Your task to perform on an android device: uninstall "DuckDuckGo Privacy Browser" Image 0: 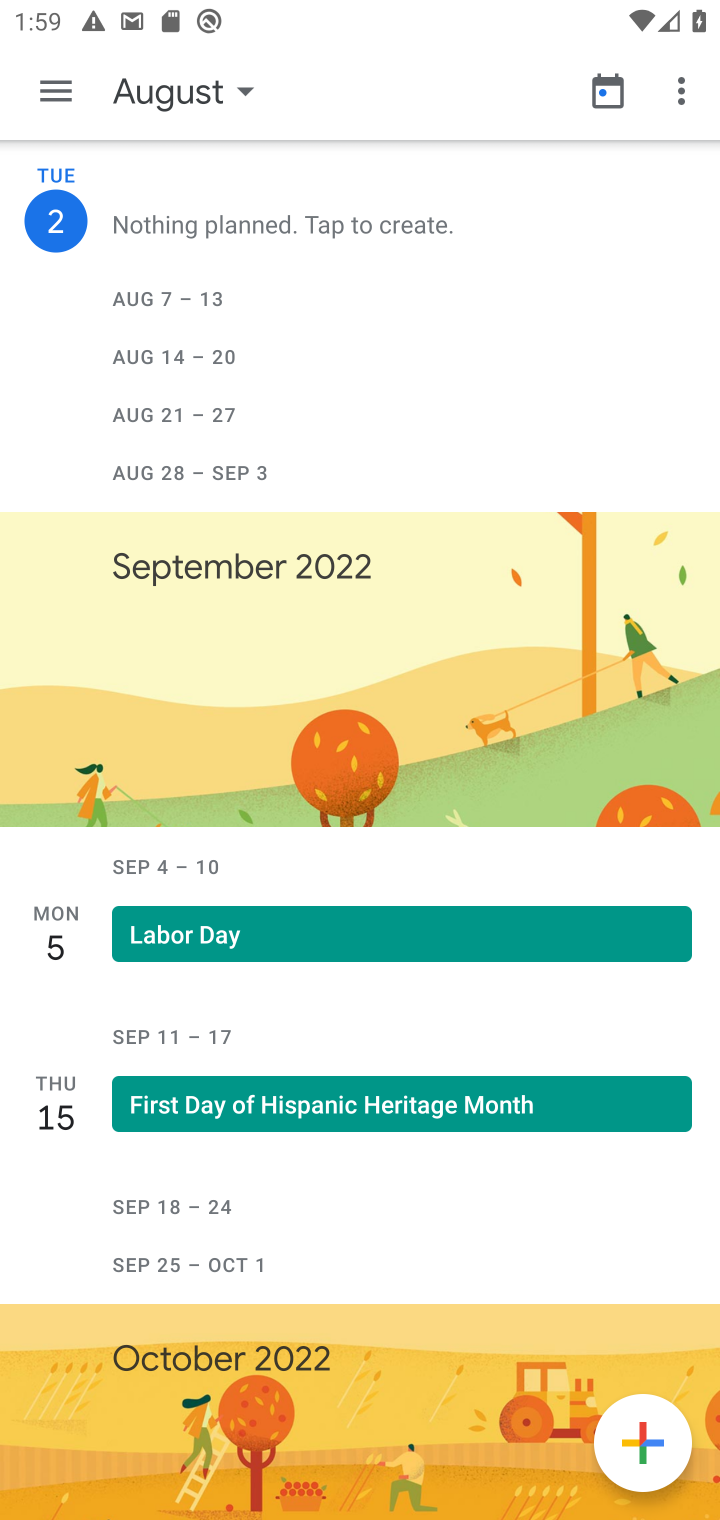
Step 0: press home button
Your task to perform on an android device: uninstall "DuckDuckGo Privacy Browser" Image 1: 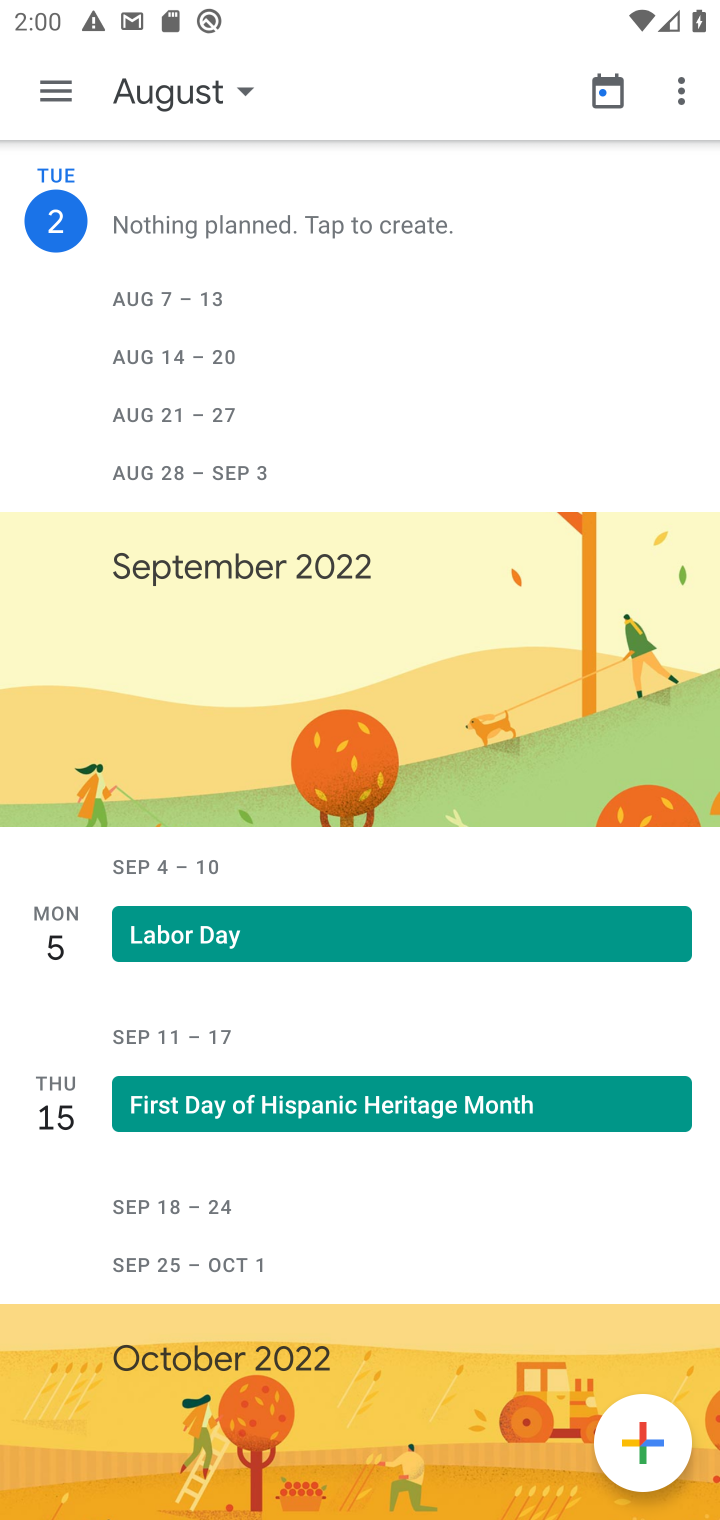
Step 1: press home button
Your task to perform on an android device: uninstall "DuckDuckGo Privacy Browser" Image 2: 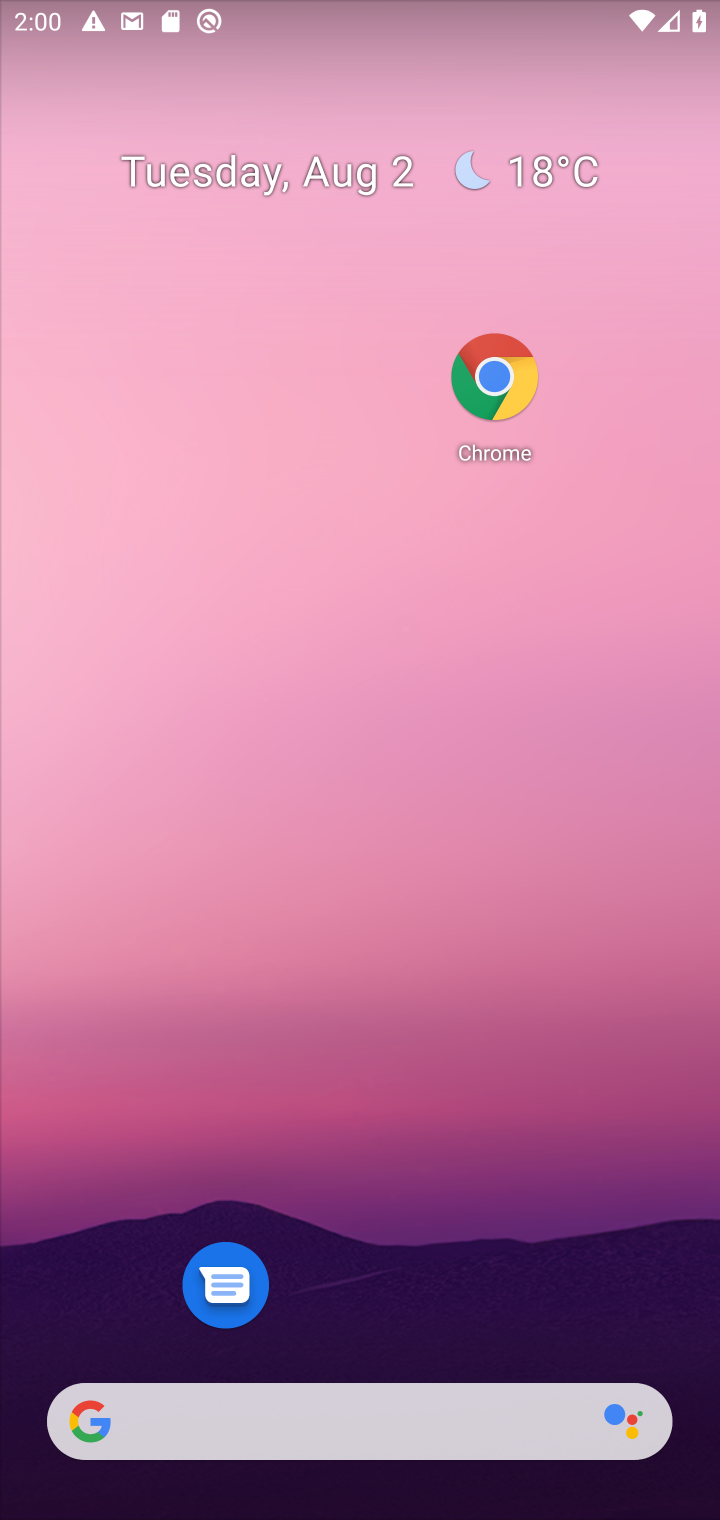
Step 2: drag from (594, 1268) to (507, 15)
Your task to perform on an android device: uninstall "DuckDuckGo Privacy Browser" Image 3: 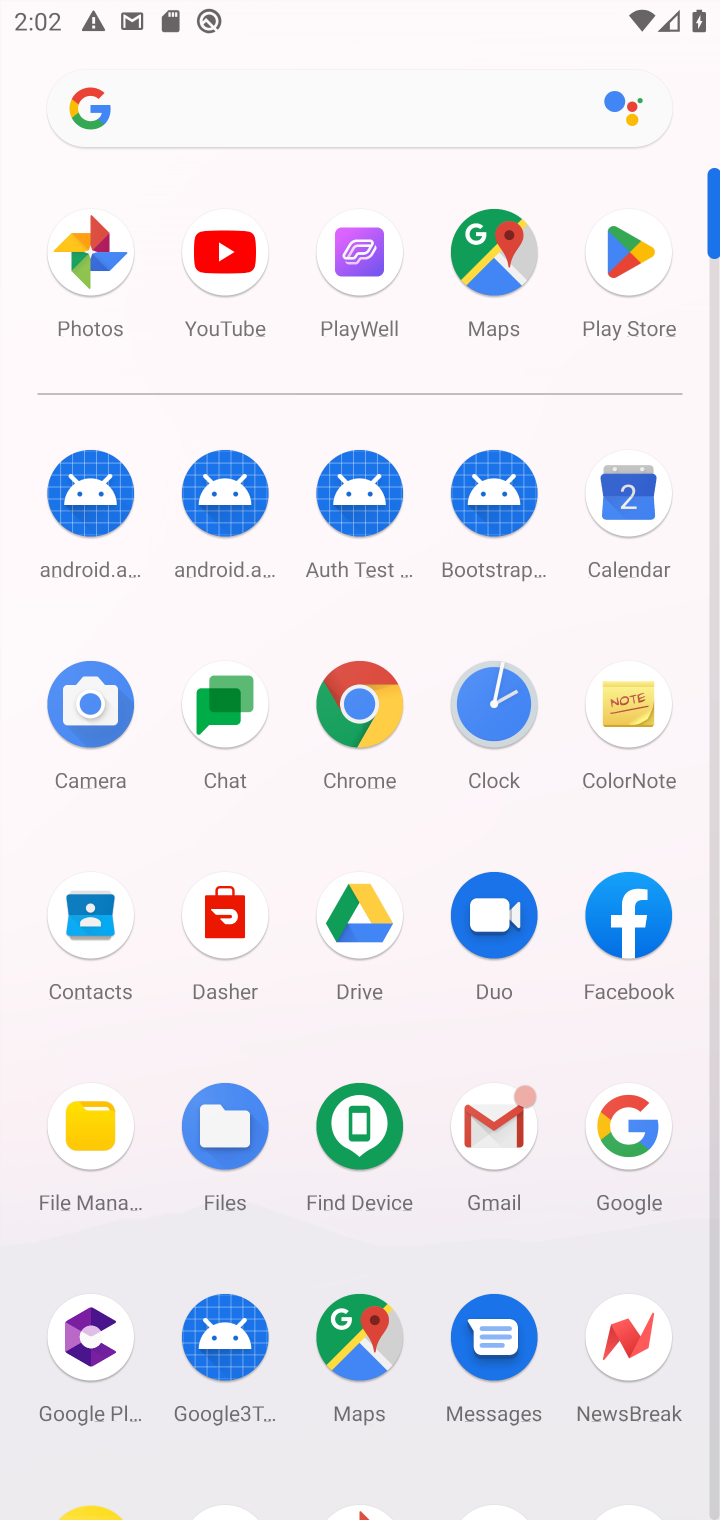
Step 3: click (409, 1156)
Your task to perform on an android device: uninstall "DuckDuckGo Privacy Browser" Image 4: 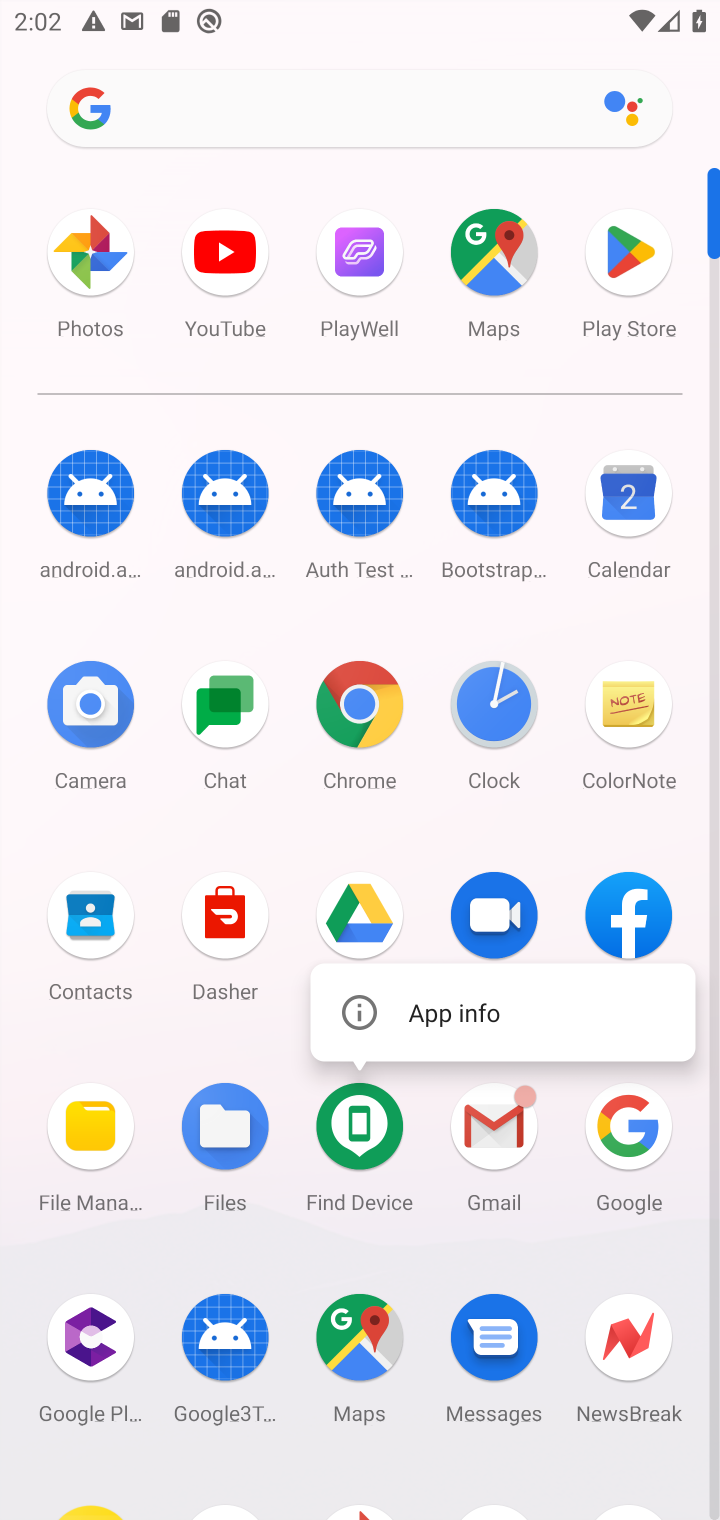
Step 4: click (624, 254)
Your task to perform on an android device: uninstall "DuckDuckGo Privacy Browser" Image 5: 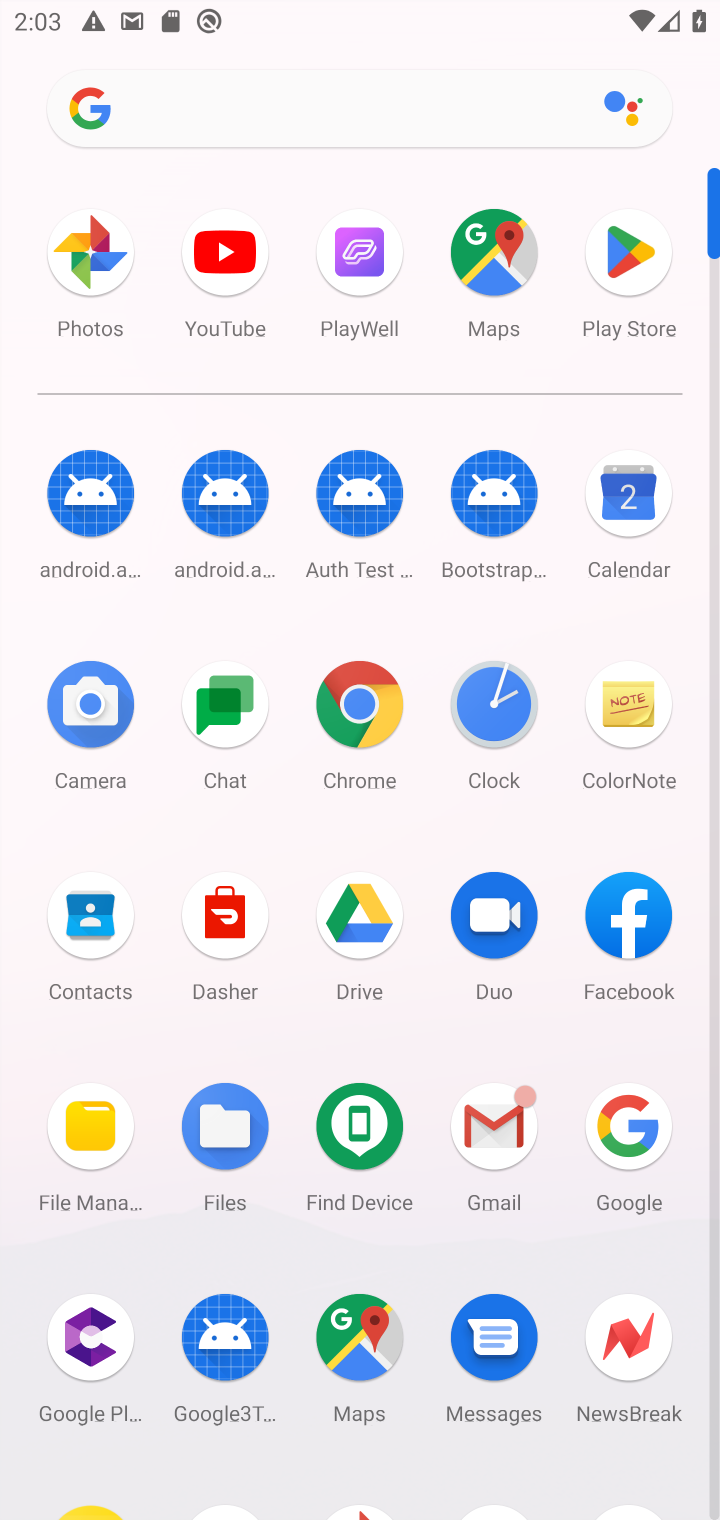
Step 5: click (633, 259)
Your task to perform on an android device: uninstall "DuckDuckGo Privacy Browser" Image 6: 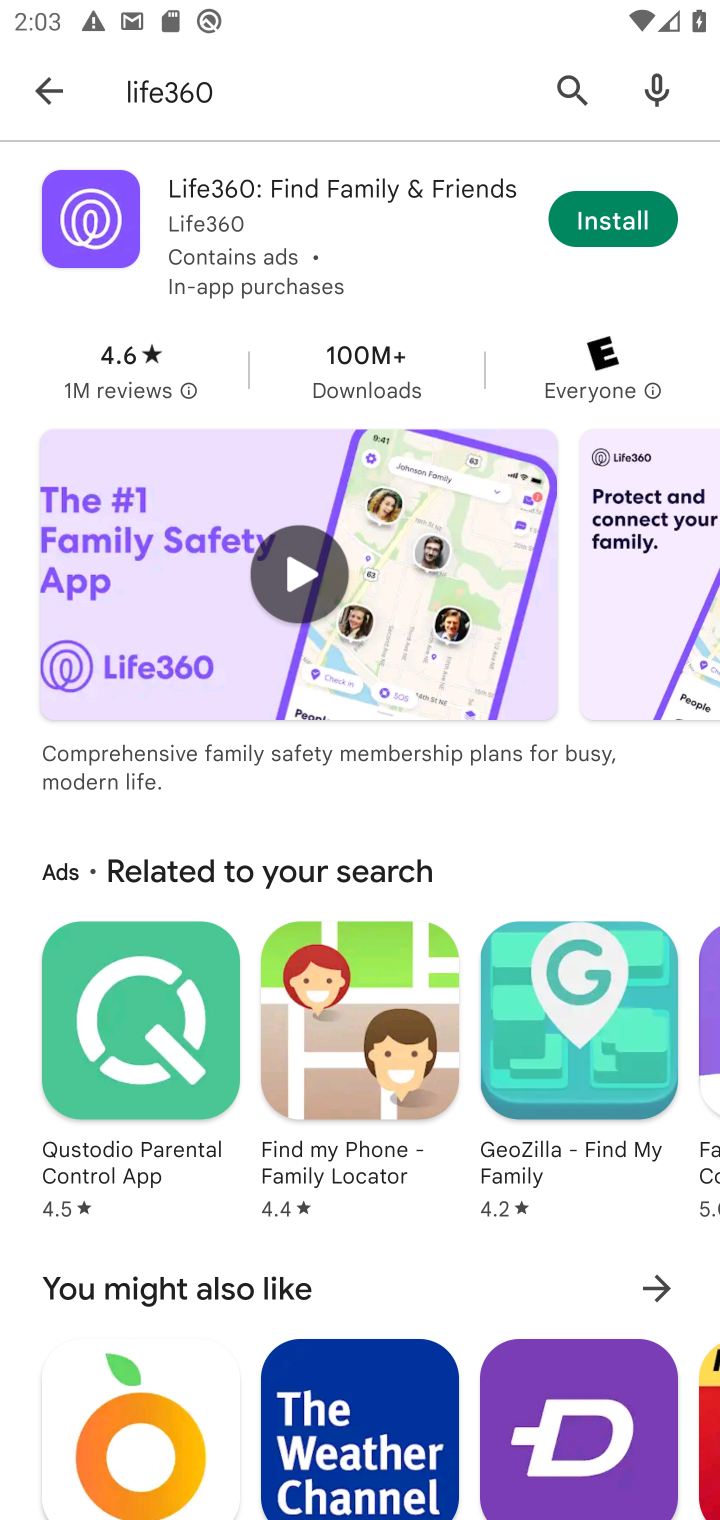
Step 6: click (572, 77)
Your task to perform on an android device: uninstall "DuckDuckGo Privacy Browser" Image 7: 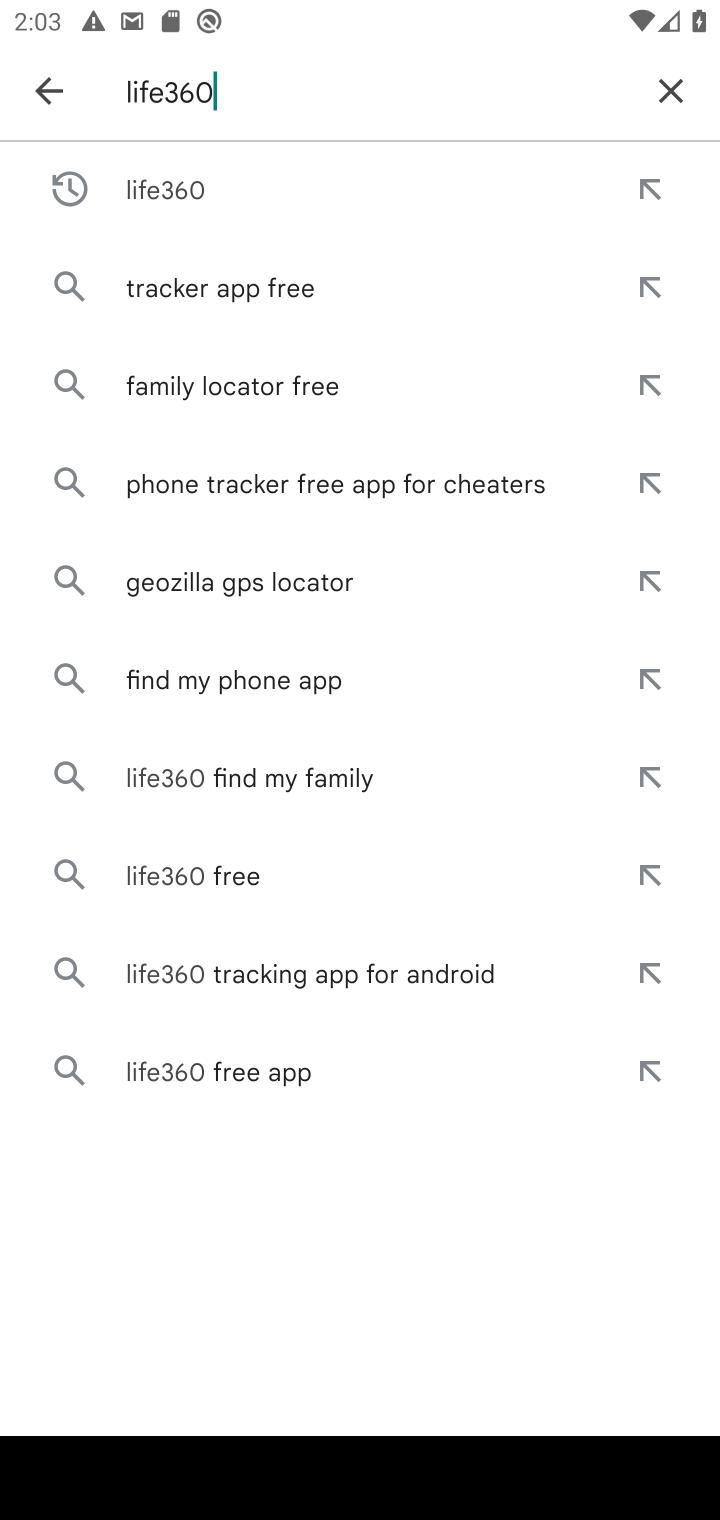
Step 7: click (683, 93)
Your task to perform on an android device: uninstall "DuckDuckGo Privacy Browser" Image 8: 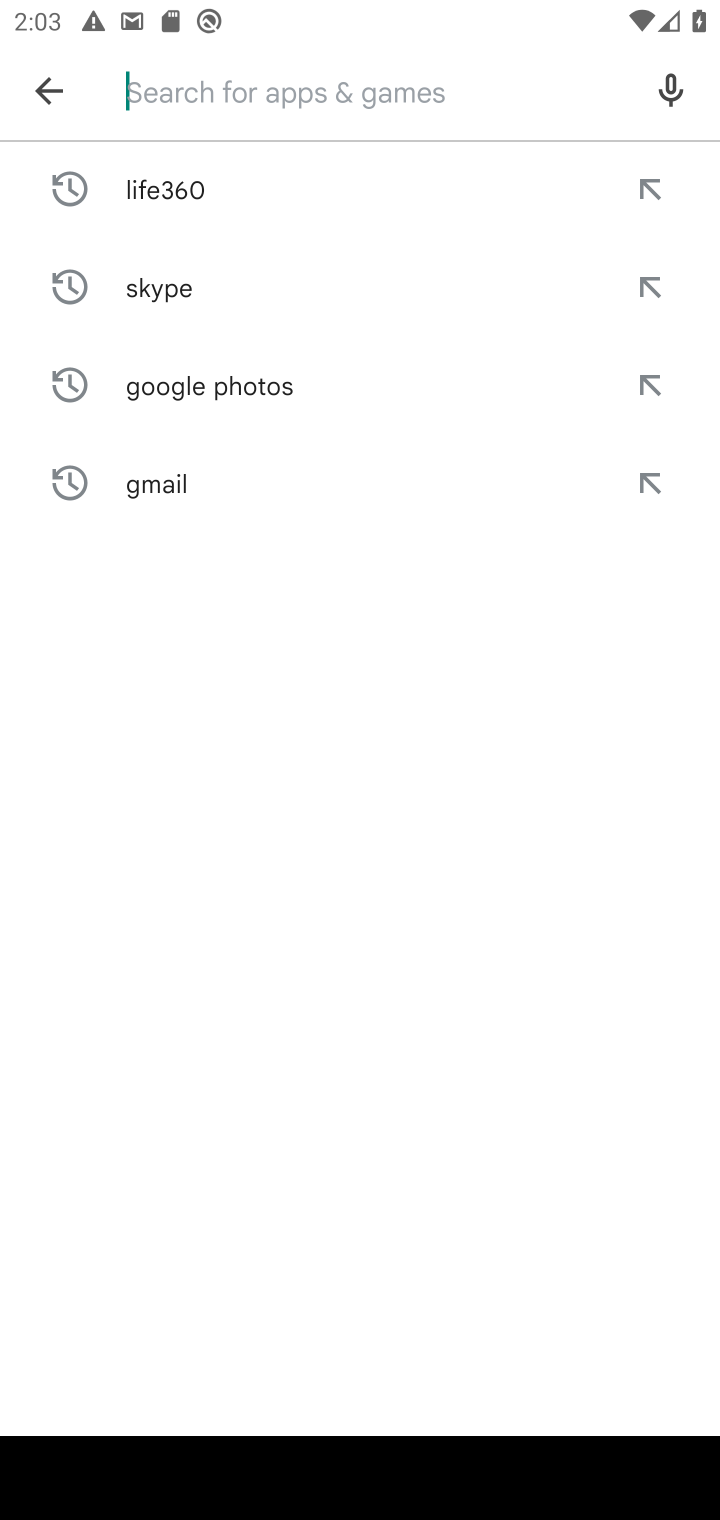
Step 8: type "DuckDuckGo Privacy Browser""
Your task to perform on an android device: uninstall "DuckDuckGo Privacy Browser" Image 9: 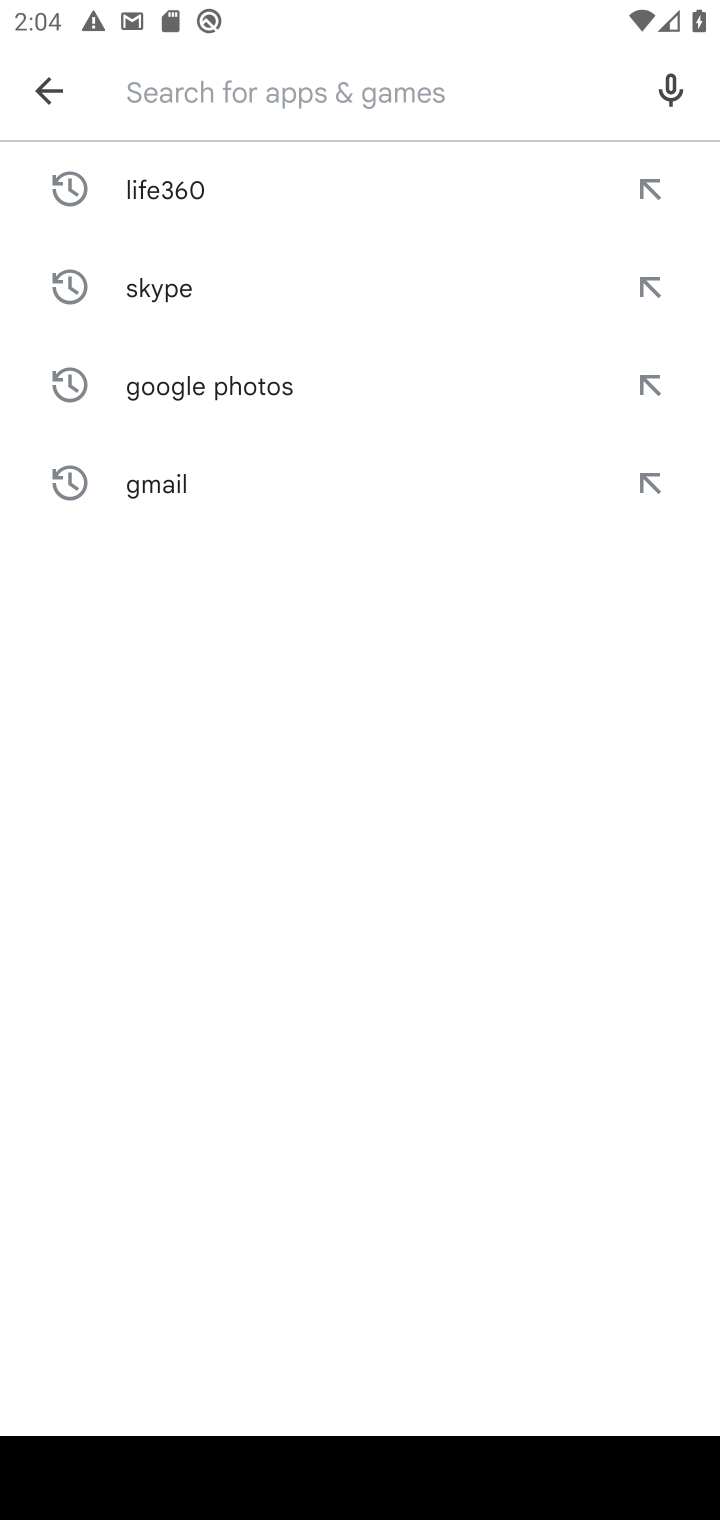
Step 9: type "DuckDuckGo Privacy Browser"
Your task to perform on an android device: uninstall "DuckDuckGo Privacy Browser" Image 10: 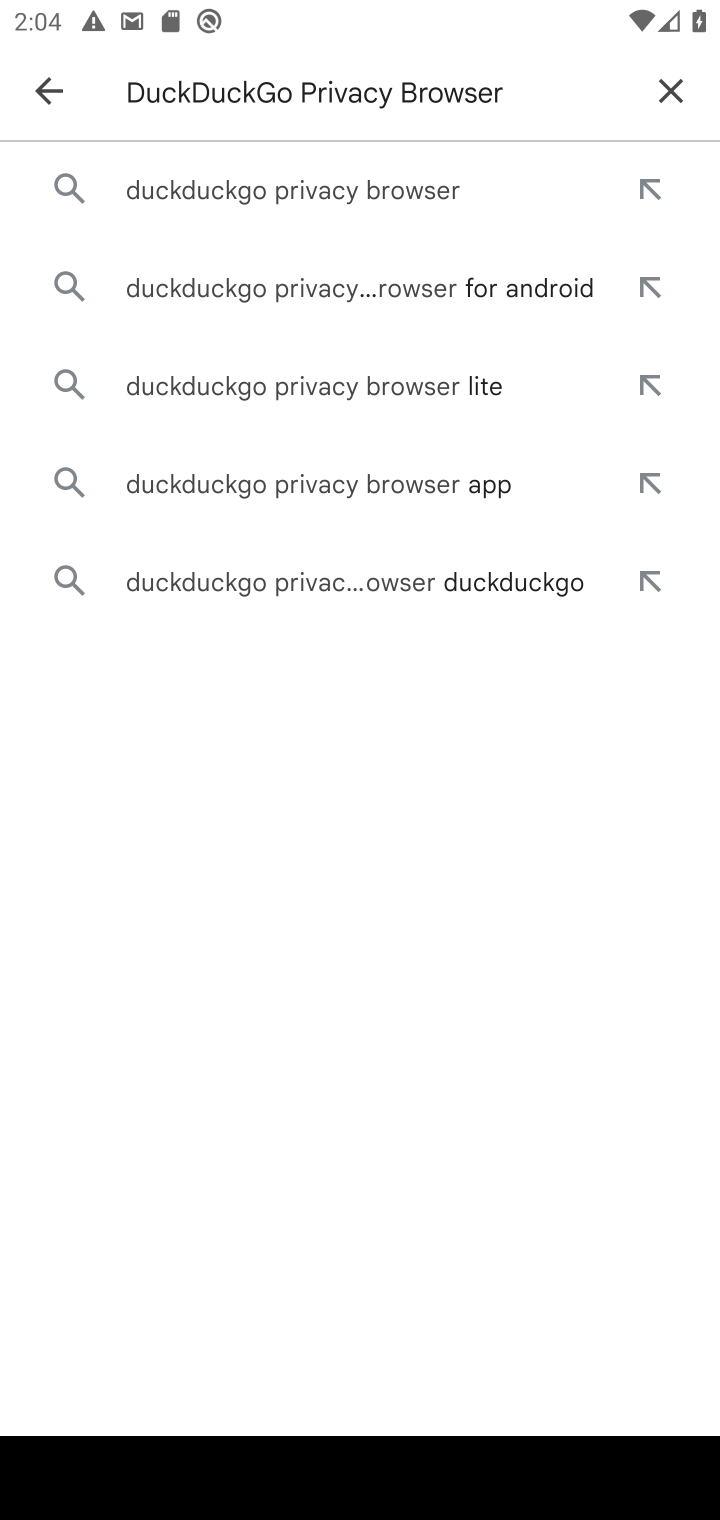
Step 10: click (221, 185)
Your task to perform on an android device: uninstall "DuckDuckGo Privacy Browser" Image 11: 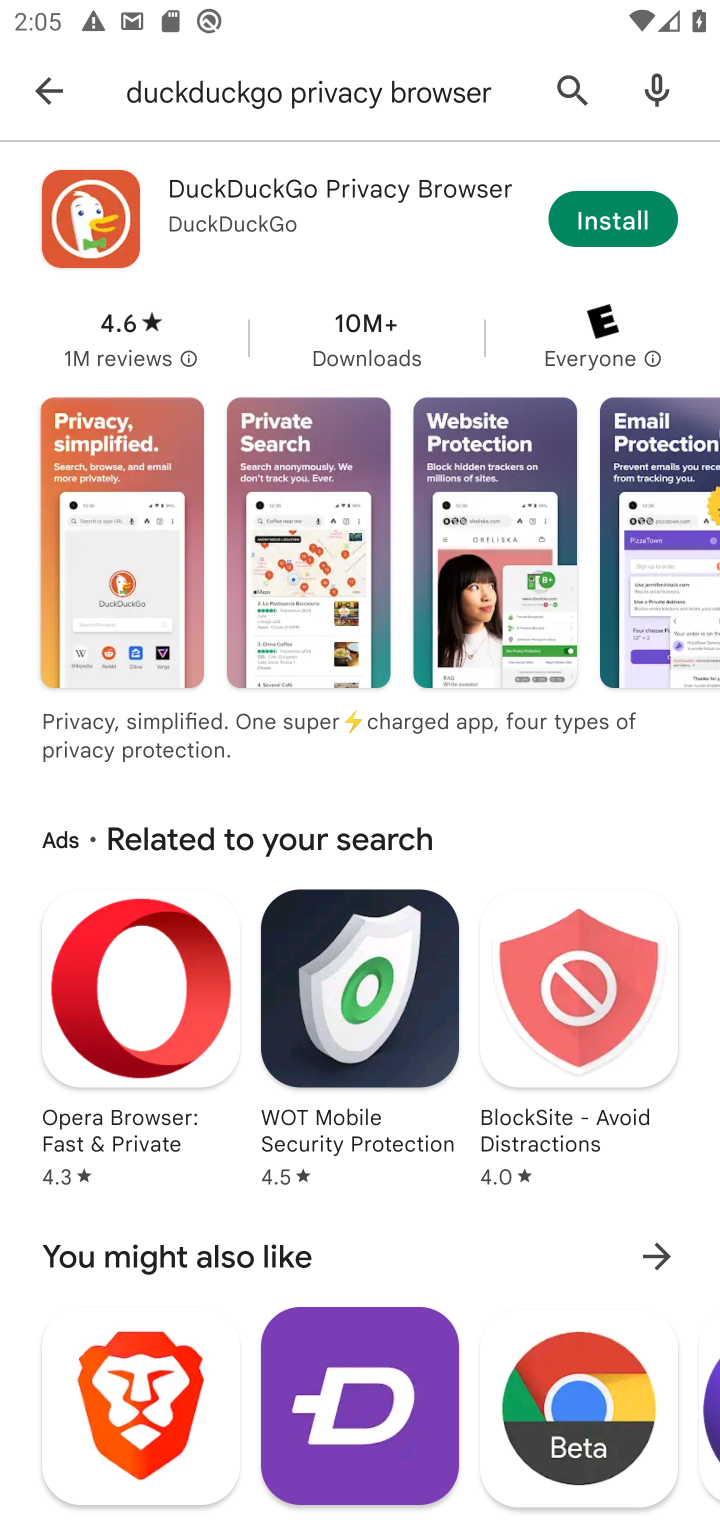
Step 11: task complete